Your task to perform on an android device: Show me recent news Image 0: 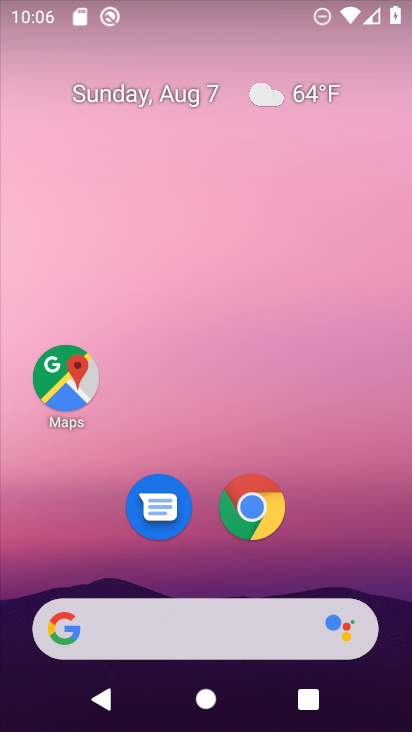
Step 0: drag from (375, 478) to (368, 31)
Your task to perform on an android device: Show me recent news Image 1: 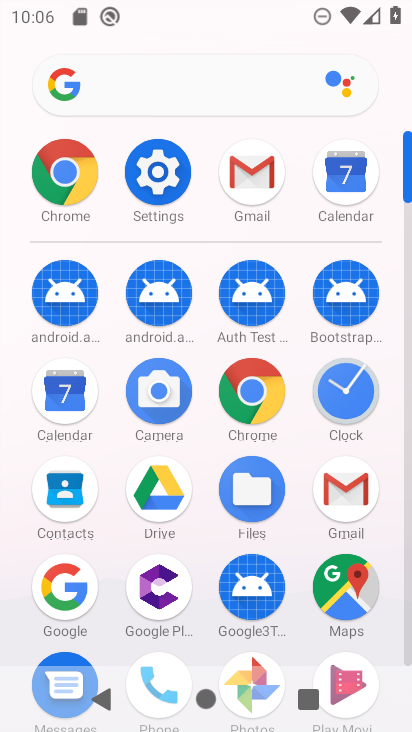
Step 1: click (252, 397)
Your task to perform on an android device: Show me recent news Image 2: 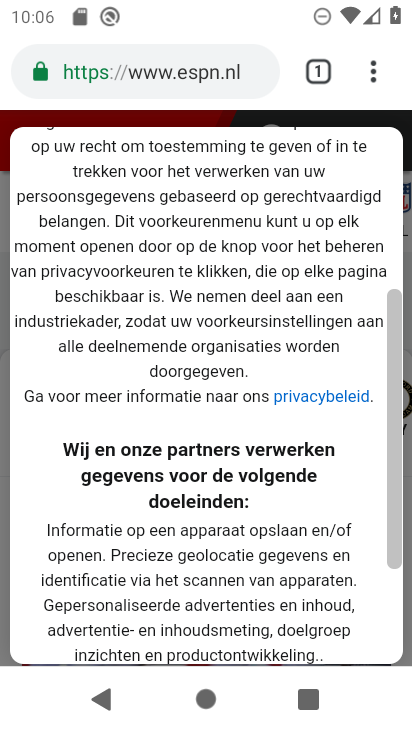
Step 2: click (187, 59)
Your task to perform on an android device: Show me recent news Image 3: 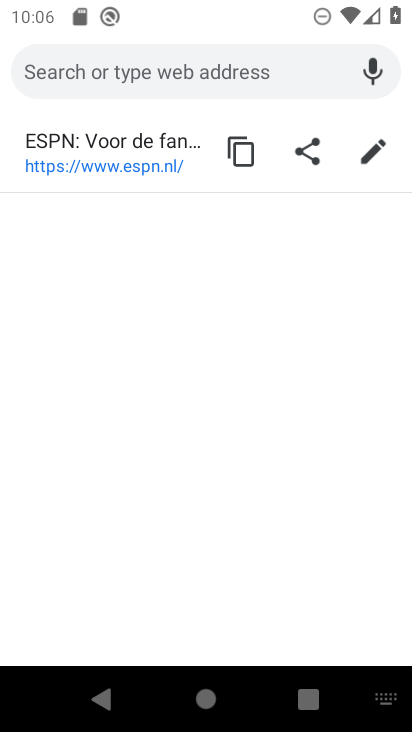
Step 3: type "news"
Your task to perform on an android device: Show me recent news Image 4: 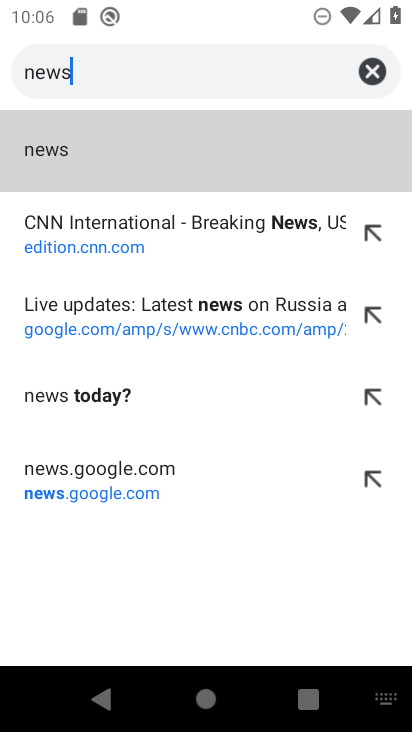
Step 4: click (41, 148)
Your task to perform on an android device: Show me recent news Image 5: 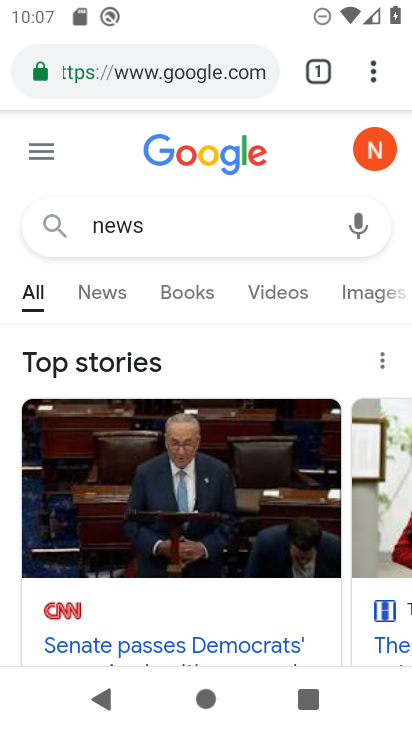
Step 5: drag from (152, 131) to (232, 10)
Your task to perform on an android device: Show me recent news Image 6: 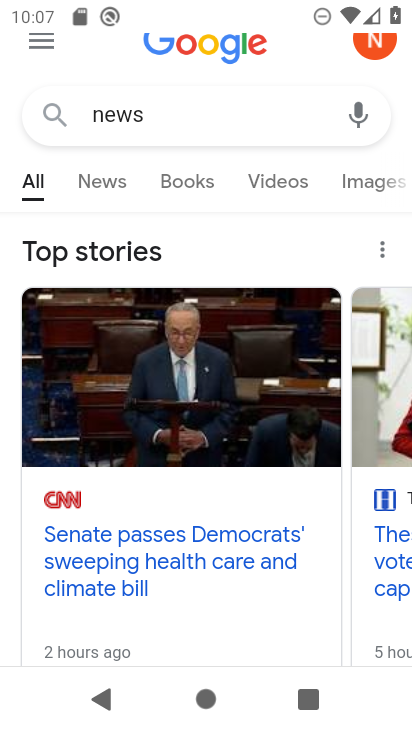
Step 6: drag from (218, 659) to (305, 283)
Your task to perform on an android device: Show me recent news Image 7: 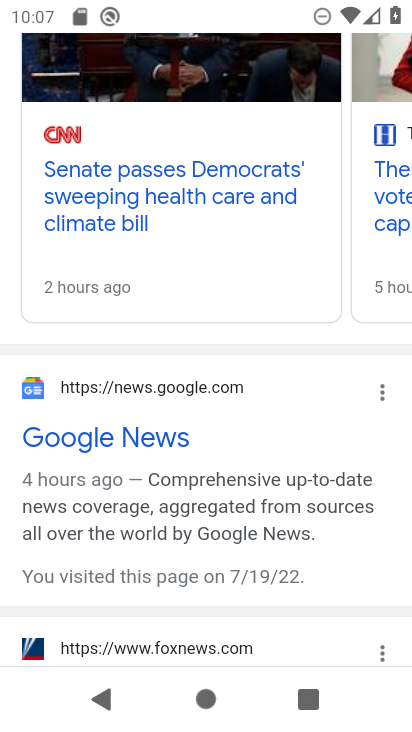
Step 7: click (87, 447)
Your task to perform on an android device: Show me recent news Image 8: 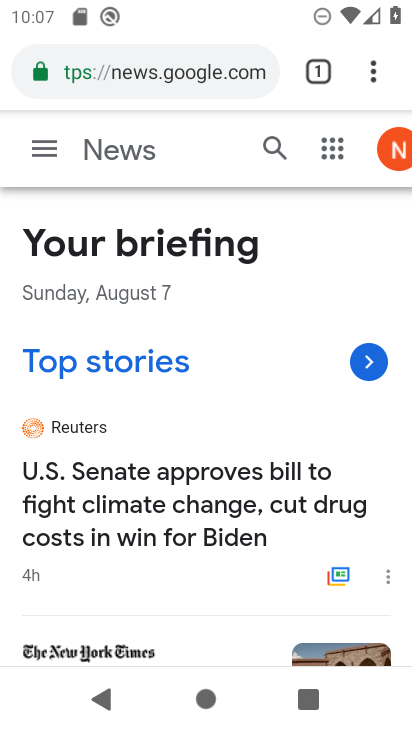
Step 8: task complete